Your task to perform on an android device: Open Google Chrome Image 0: 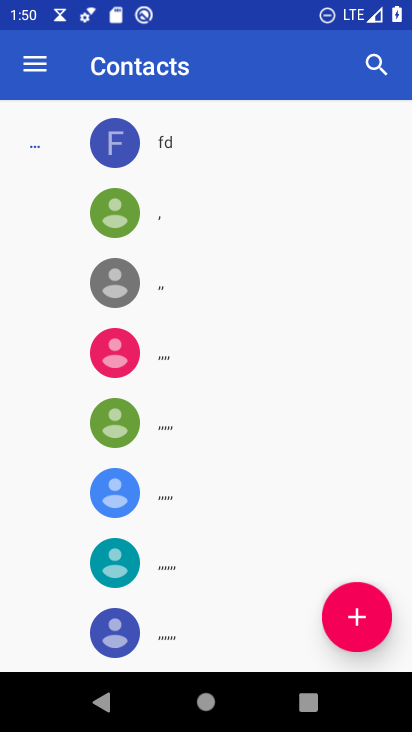
Step 0: press home button
Your task to perform on an android device: Open Google Chrome Image 1: 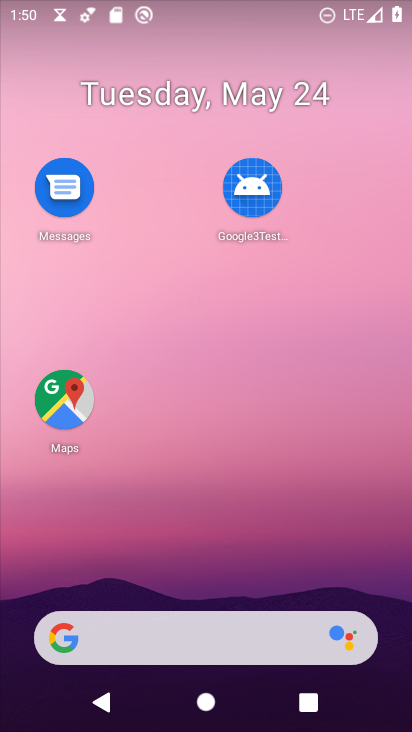
Step 1: drag from (204, 503) to (204, 4)
Your task to perform on an android device: Open Google Chrome Image 2: 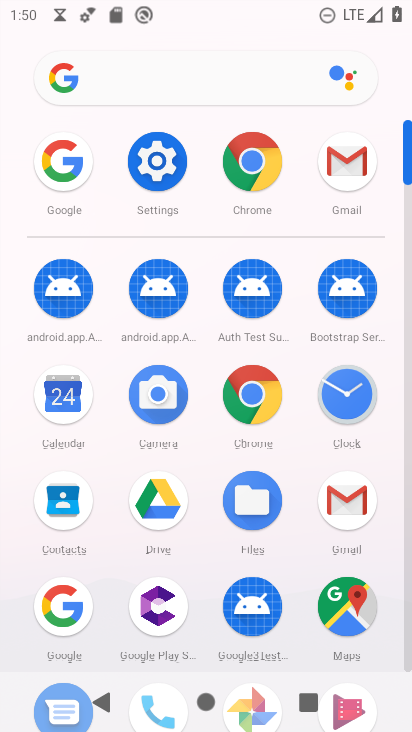
Step 2: click (240, 168)
Your task to perform on an android device: Open Google Chrome Image 3: 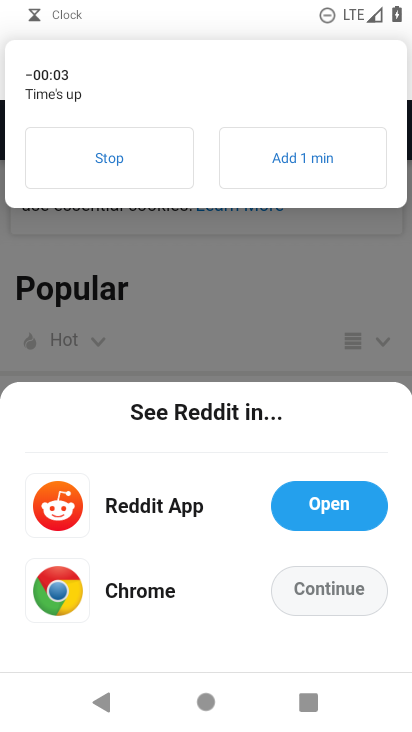
Step 3: click (86, 148)
Your task to perform on an android device: Open Google Chrome Image 4: 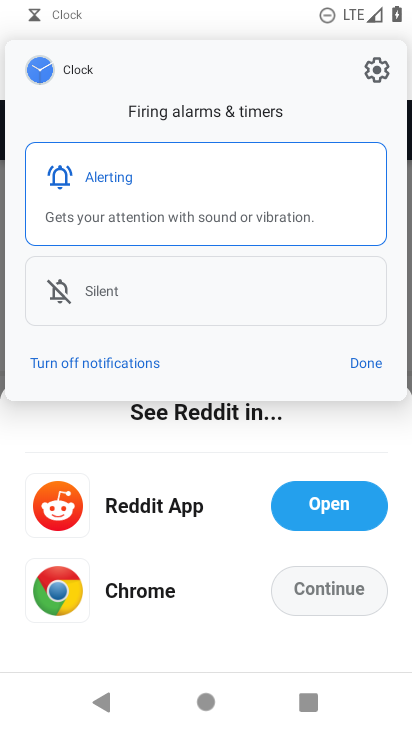
Step 4: click (369, 350)
Your task to perform on an android device: Open Google Chrome Image 5: 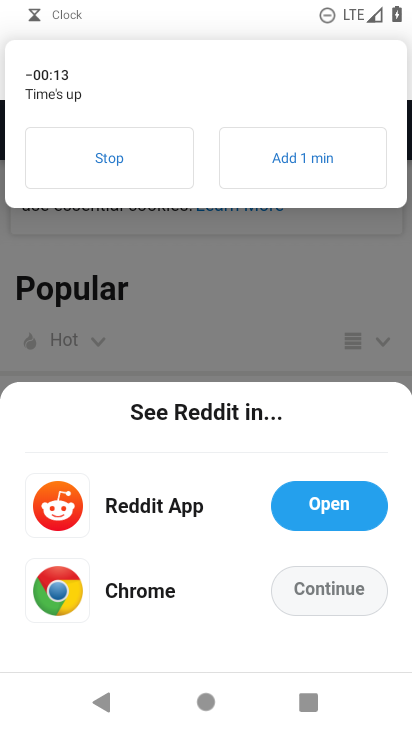
Step 5: click (55, 175)
Your task to perform on an android device: Open Google Chrome Image 6: 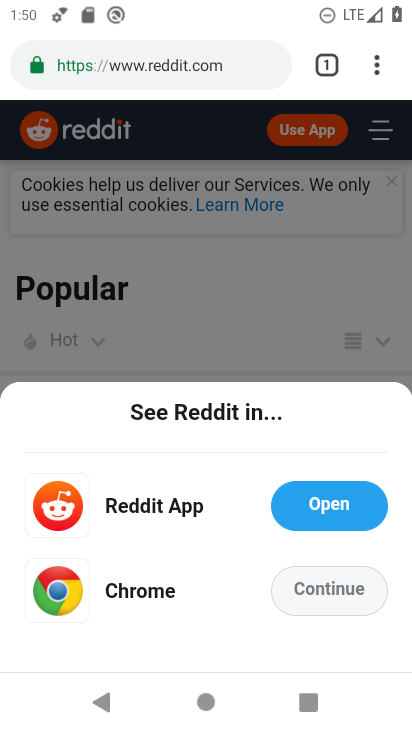
Step 6: click (381, 71)
Your task to perform on an android device: Open Google Chrome Image 7: 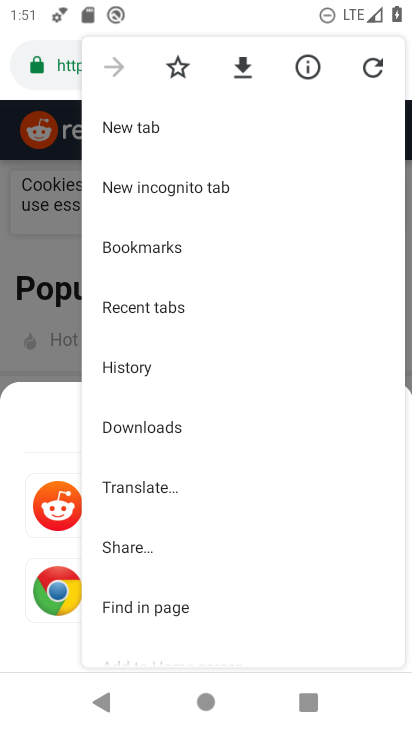
Step 7: click (146, 169)
Your task to perform on an android device: Open Google Chrome Image 8: 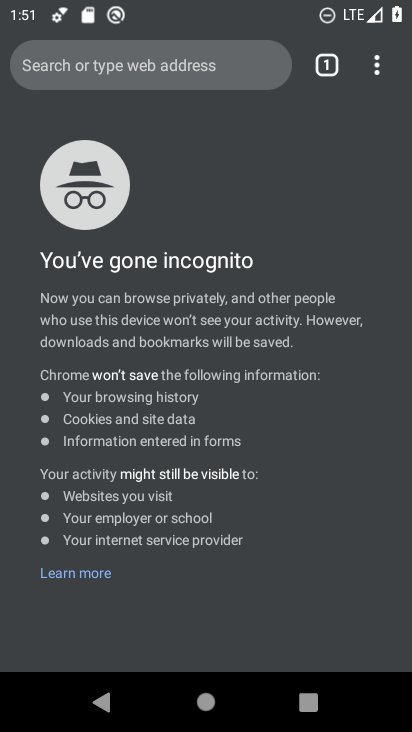
Step 8: press back button
Your task to perform on an android device: Open Google Chrome Image 9: 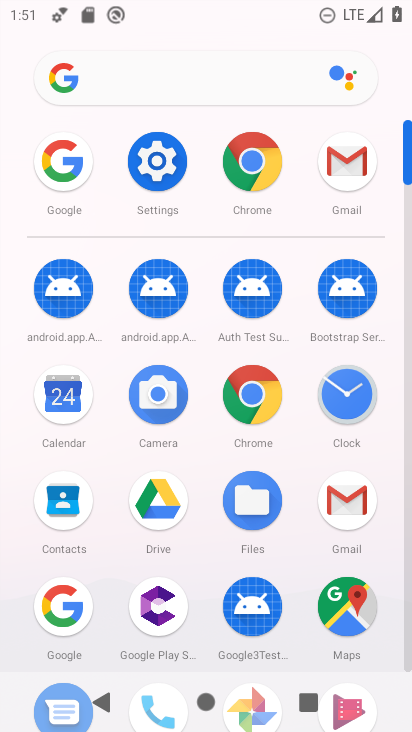
Step 9: click (233, 171)
Your task to perform on an android device: Open Google Chrome Image 10: 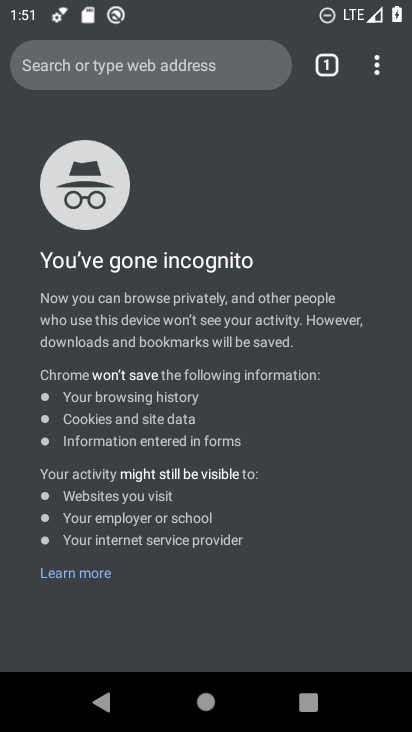
Step 10: click (334, 74)
Your task to perform on an android device: Open Google Chrome Image 11: 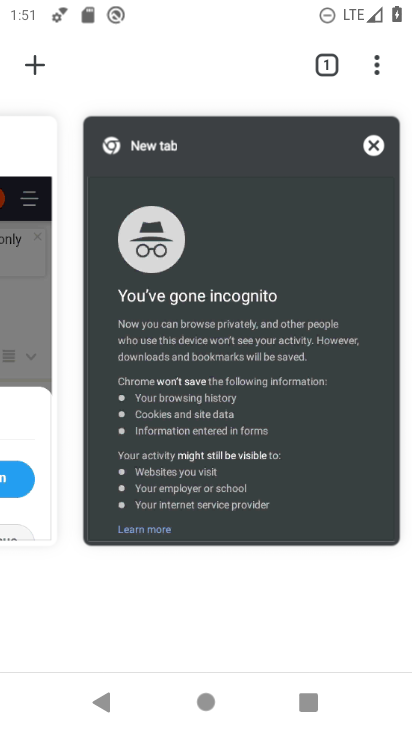
Step 11: click (369, 146)
Your task to perform on an android device: Open Google Chrome Image 12: 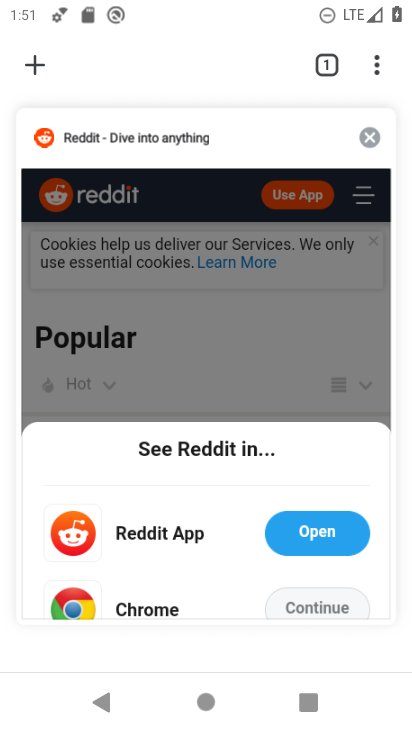
Step 12: click (33, 60)
Your task to perform on an android device: Open Google Chrome Image 13: 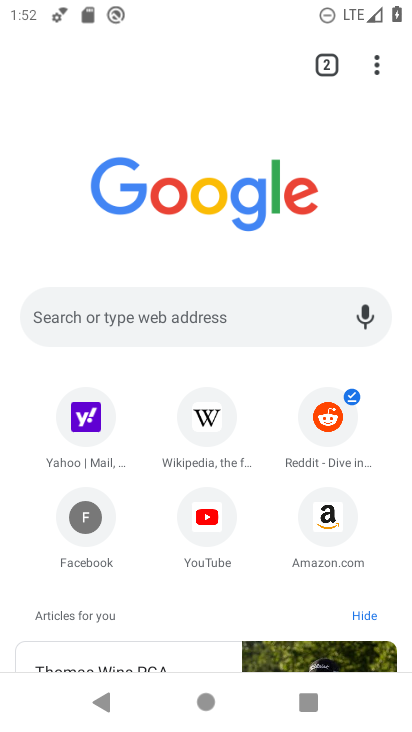
Step 13: task complete